Your task to perform on an android device: find which apps use the phone's location Image 0: 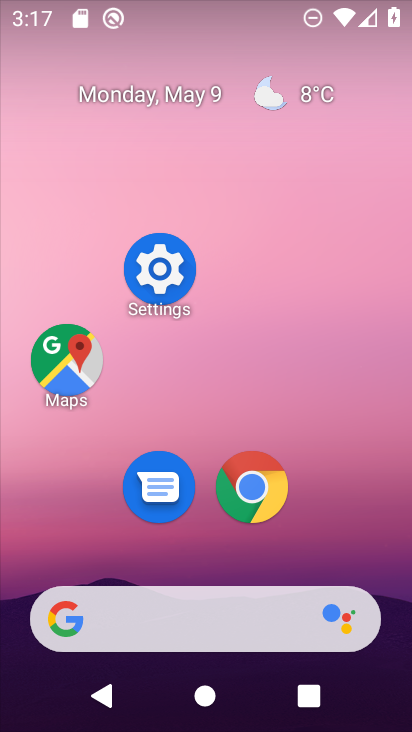
Step 0: drag from (366, 525) to (333, 60)
Your task to perform on an android device: find which apps use the phone's location Image 1: 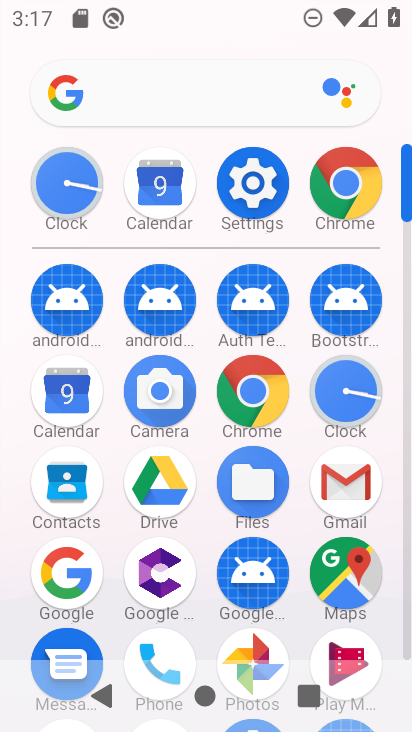
Step 1: click (232, 208)
Your task to perform on an android device: find which apps use the phone's location Image 2: 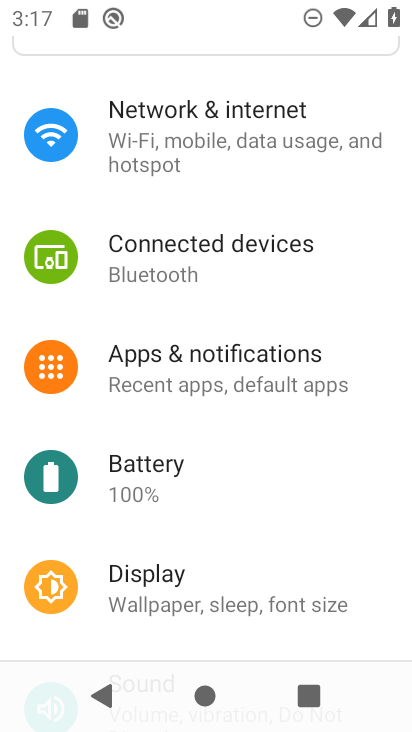
Step 2: drag from (198, 591) to (157, 18)
Your task to perform on an android device: find which apps use the phone's location Image 3: 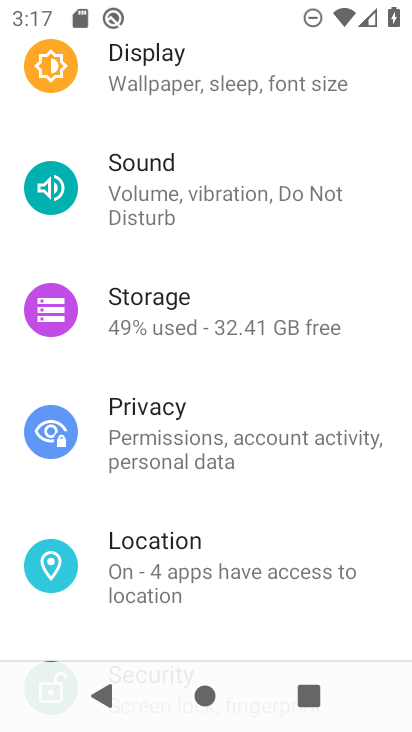
Step 3: click (143, 571)
Your task to perform on an android device: find which apps use the phone's location Image 4: 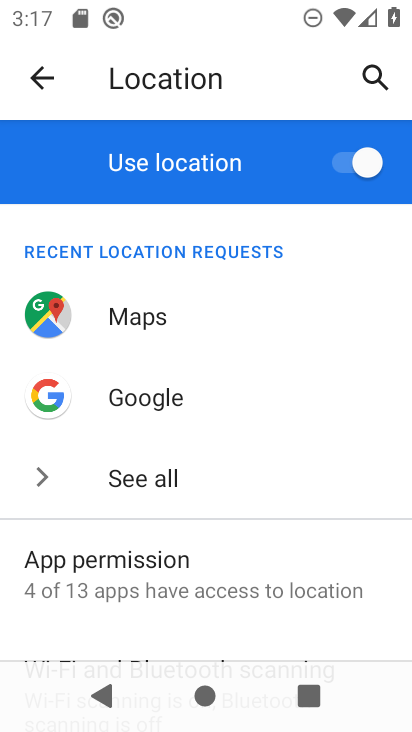
Step 4: drag from (242, 553) to (231, 204)
Your task to perform on an android device: find which apps use the phone's location Image 5: 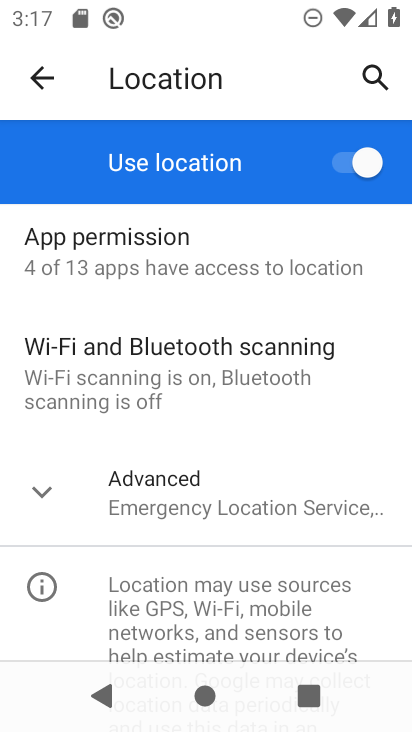
Step 5: click (176, 497)
Your task to perform on an android device: find which apps use the phone's location Image 6: 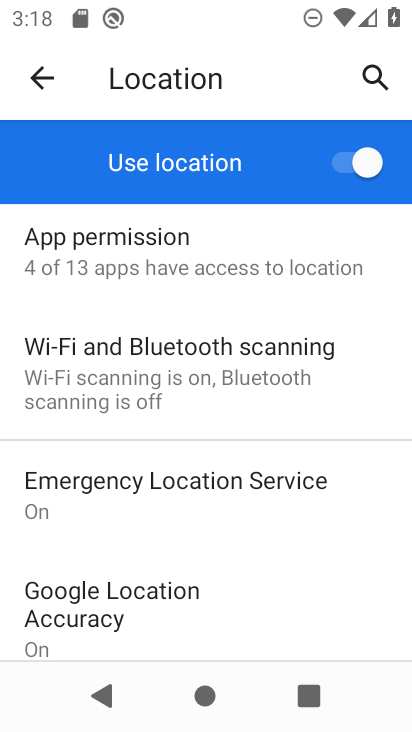
Step 6: drag from (221, 598) to (185, 713)
Your task to perform on an android device: find which apps use the phone's location Image 7: 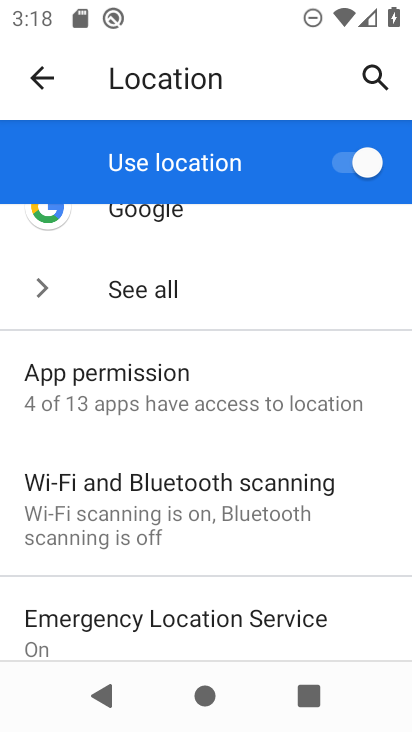
Step 7: click (160, 390)
Your task to perform on an android device: find which apps use the phone's location Image 8: 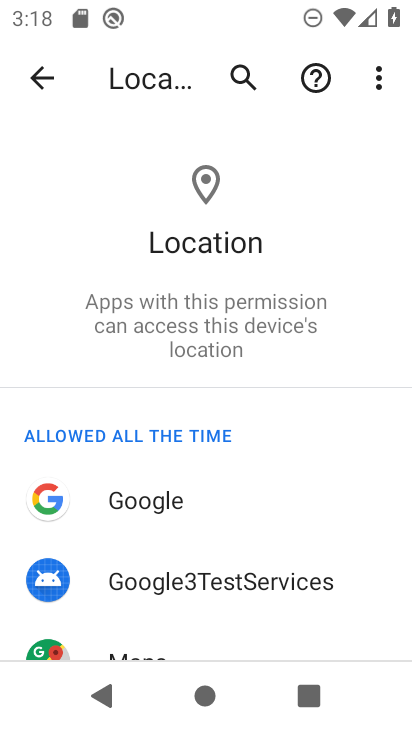
Step 8: task complete